Your task to perform on an android device: Go to Google maps Image 0: 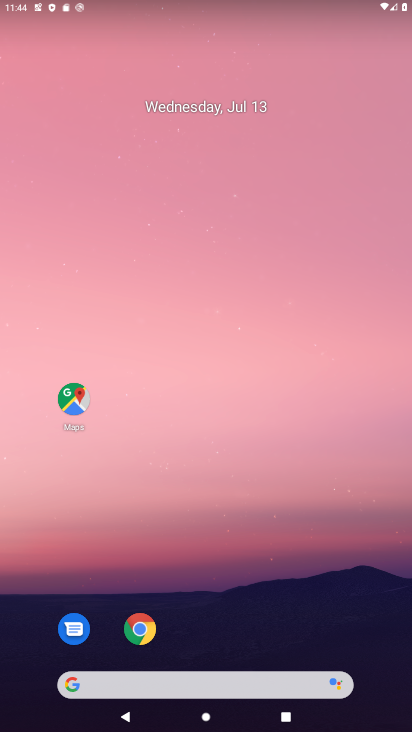
Step 0: drag from (275, 709) to (271, 44)
Your task to perform on an android device: Go to Google maps Image 1: 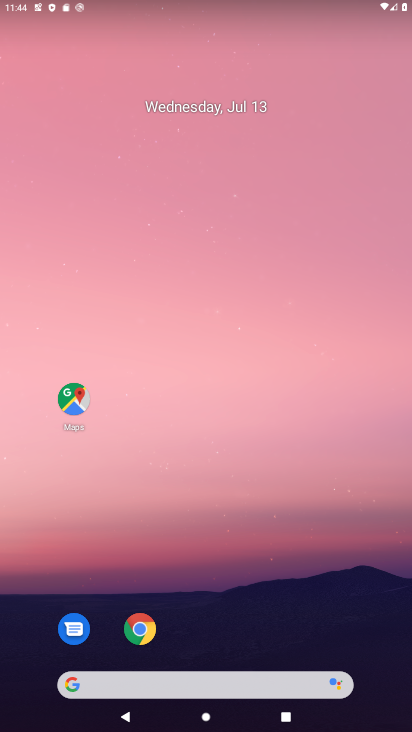
Step 1: drag from (266, 417) to (268, 46)
Your task to perform on an android device: Go to Google maps Image 2: 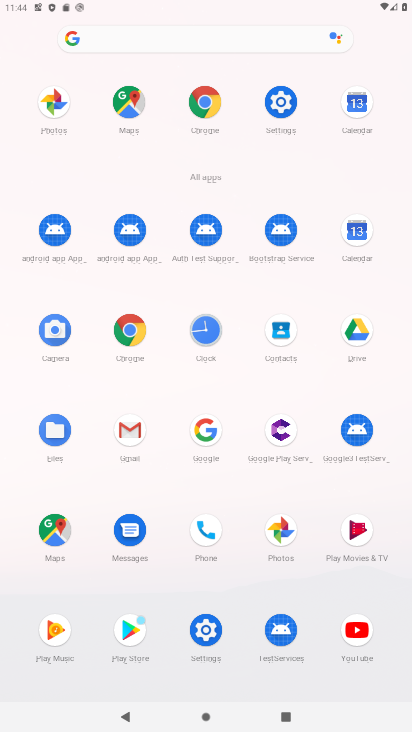
Step 2: click (136, 107)
Your task to perform on an android device: Go to Google maps Image 3: 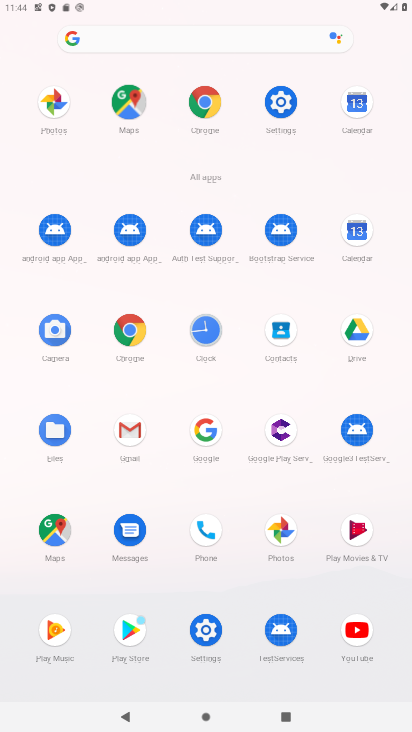
Step 3: click (136, 107)
Your task to perform on an android device: Go to Google maps Image 4: 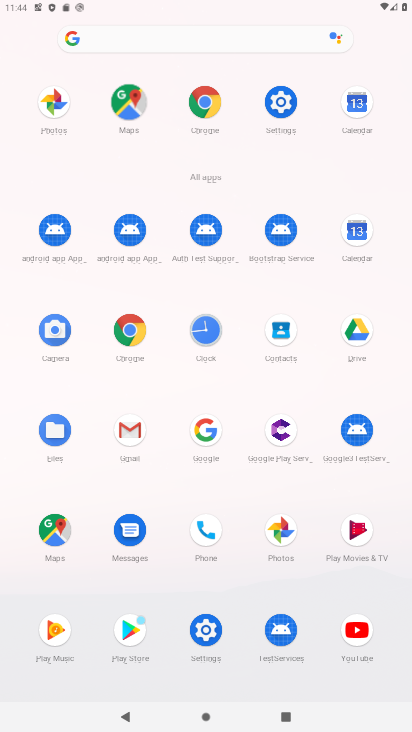
Step 4: click (135, 106)
Your task to perform on an android device: Go to Google maps Image 5: 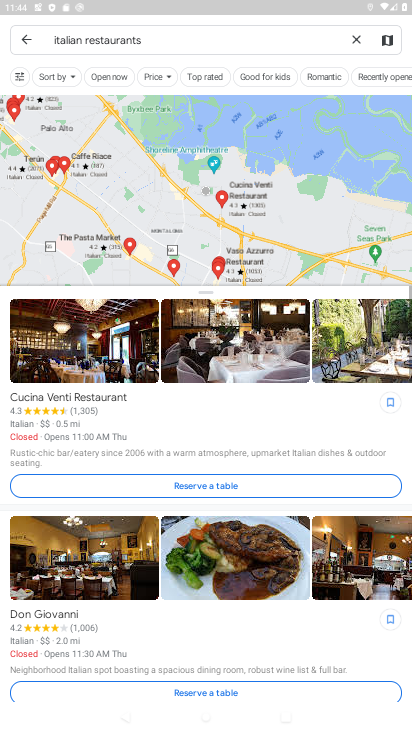
Step 5: task complete